Your task to perform on an android device: Go to Amazon Image 0: 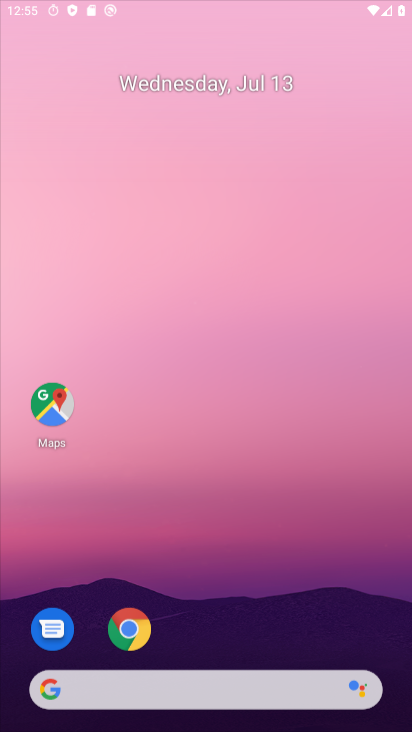
Step 0: click (323, 23)
Your task to perform on an android device: Go to Amazon Image 1: 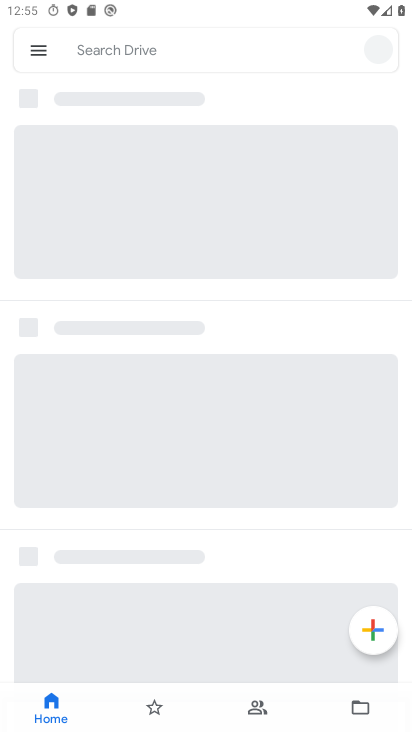
Step 1: press home button
Your task to perform on an android device: Go to Amazon Image 2: 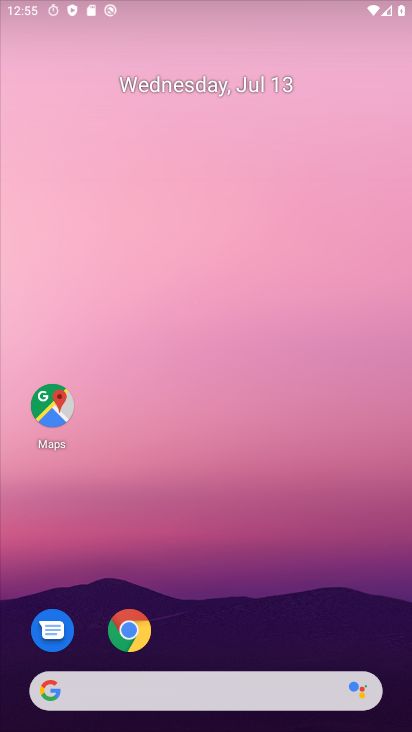
Step 2: drag from (262, 538) to (323, 4)
Your task to perform on an android device: Go to Amazon Image 3: 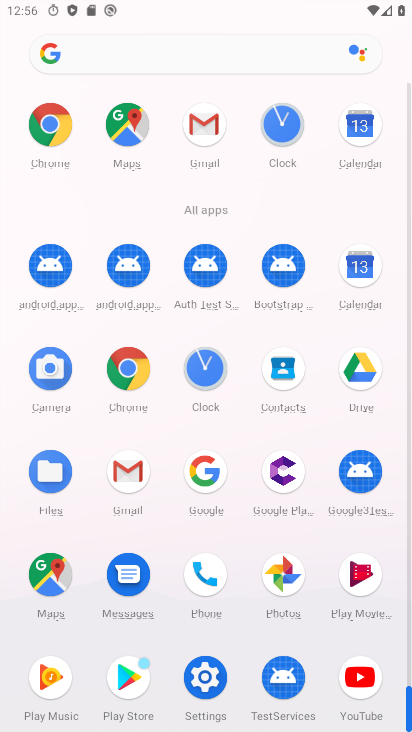
Step 3: click (50, 126)
Your task to perform on an android device: Go to Amazon Image 4: 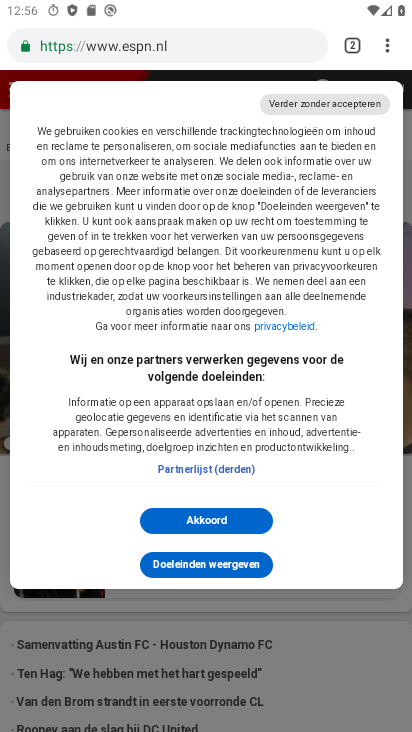
Step 4: press back button
Your task to perform on an android device: Go to Amazon Image 5: 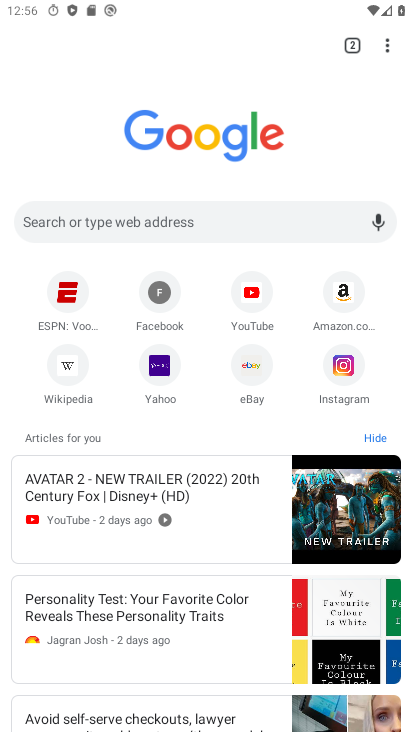
Step 5: click (338, 289)
Your task to perform on an android device: Go to Amazon Image 6: 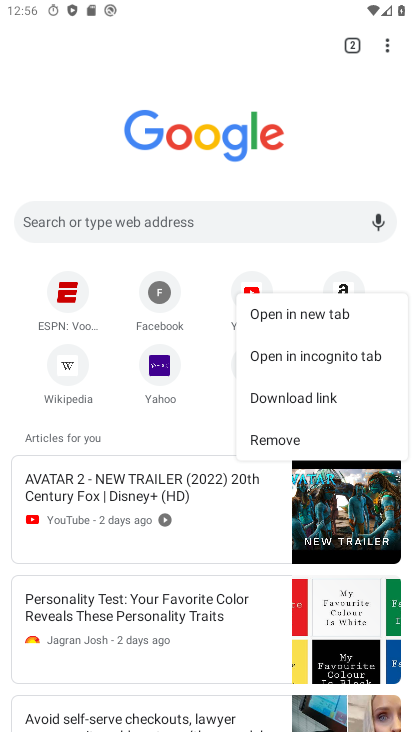
Step 6: click (328, 258)
Your task to perform on an android device: Go to Amazon Image 7: 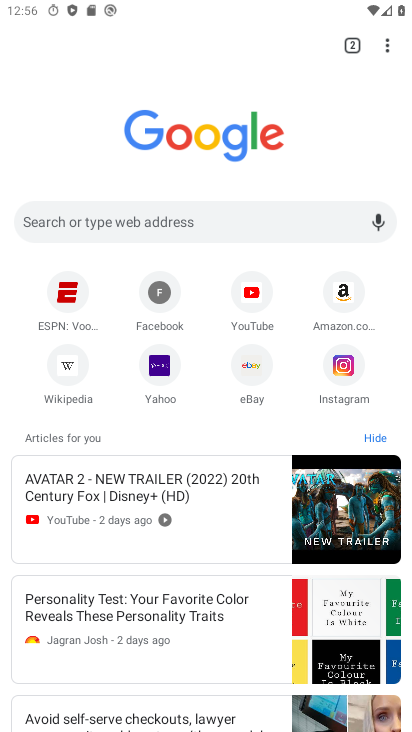
Step 7: click (355, 295)
Your task to perform on an android device: Go to Amazon Image 8: 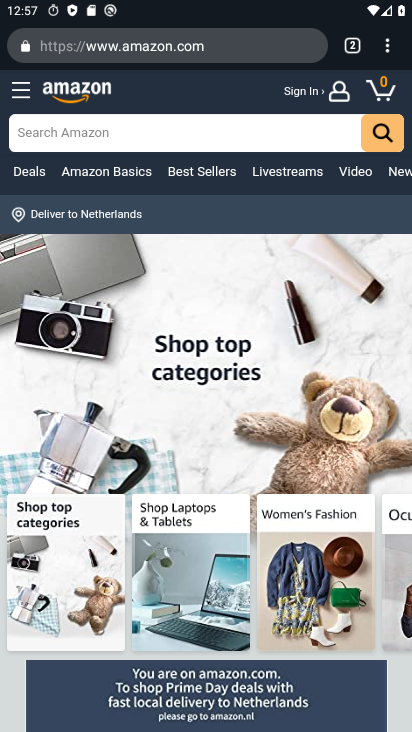
Step 8: task complete